Your task to perform on an android device: Clear all items from cart on target.com. Search for "logitech g903" on target.com, select the first entry, and add it to the cart. Image 0: 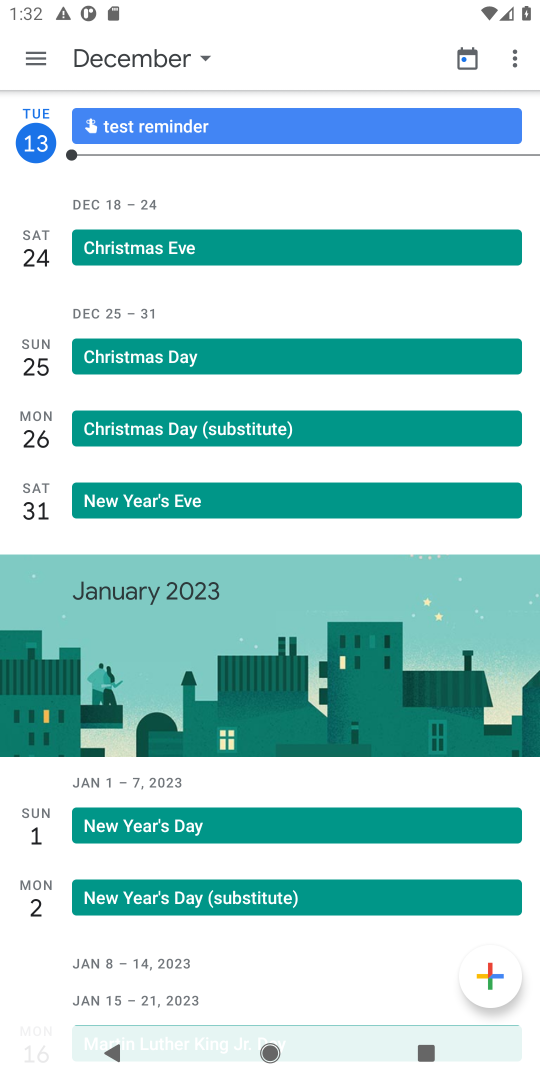
Step 0: press home button
Your task to perform on an android device: Clear all items from cart on target.com. Search for "logitech g903" on target.com, select the first entry, and add it to the cart. Image 1: 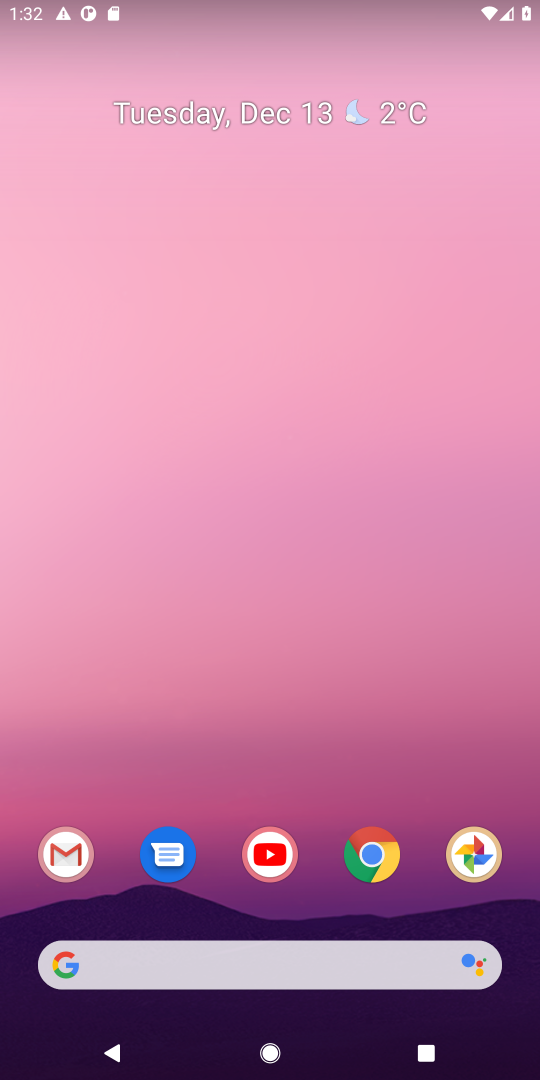
Step 1: click (232, 955)
Your task to perform on an android device: Clear all items from cart on target.com. Search for "logitech g903" on target.com, select the first entry, and add it to the cart. Image 2: 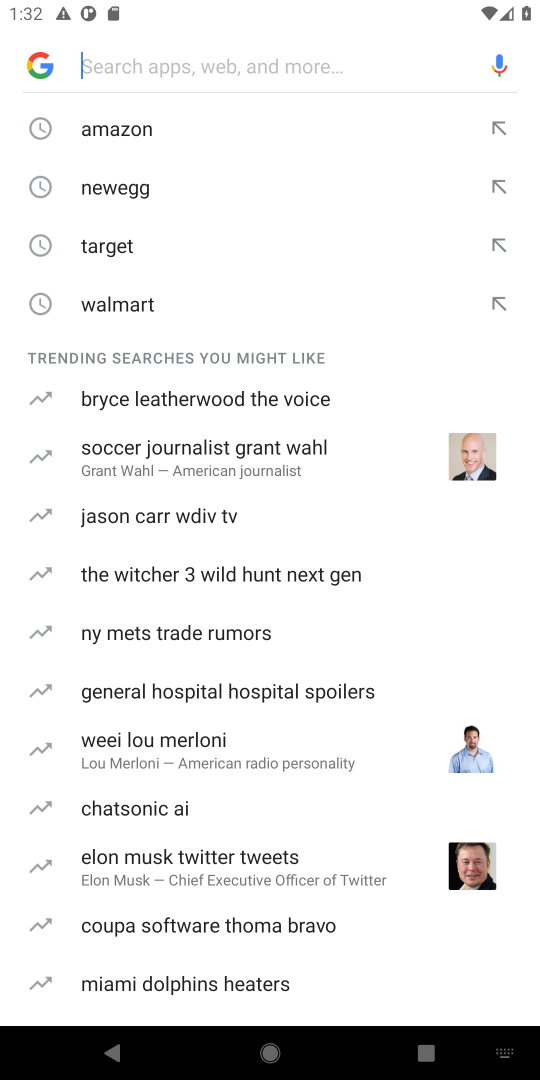
Step 2: type "target"
Your task to perform on an android device: Clear all items from cart on target.com. Search for "logitech g903" on target.com, select the first entry, and add it to the cart. Image 3: 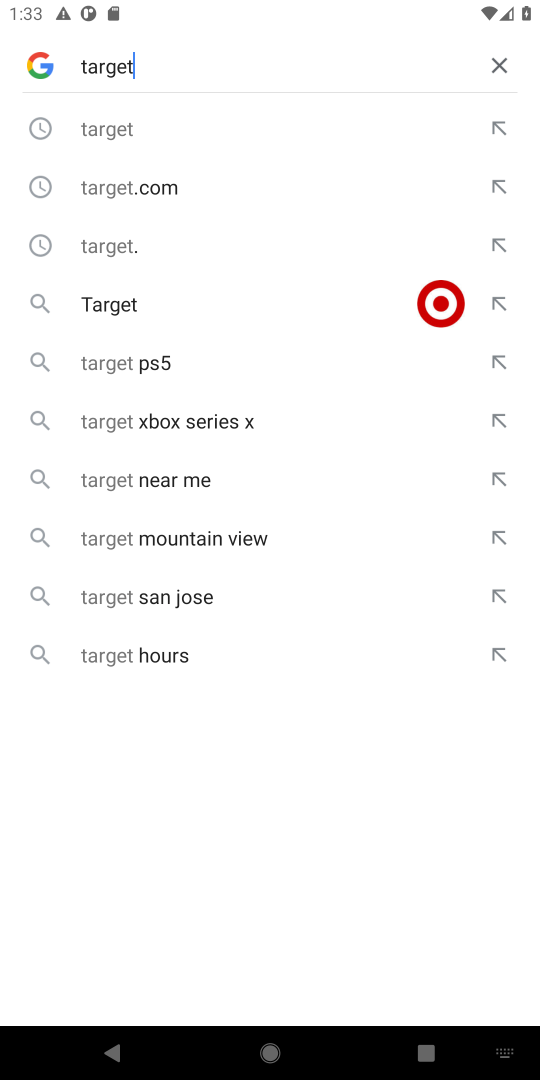
Step 3: click (96, 134)
Your task to perform on an android device: Clear all items from cart on target.com. Search for "logitech g903" on target.com, select the first entry, and add it to the cart. Image 4: 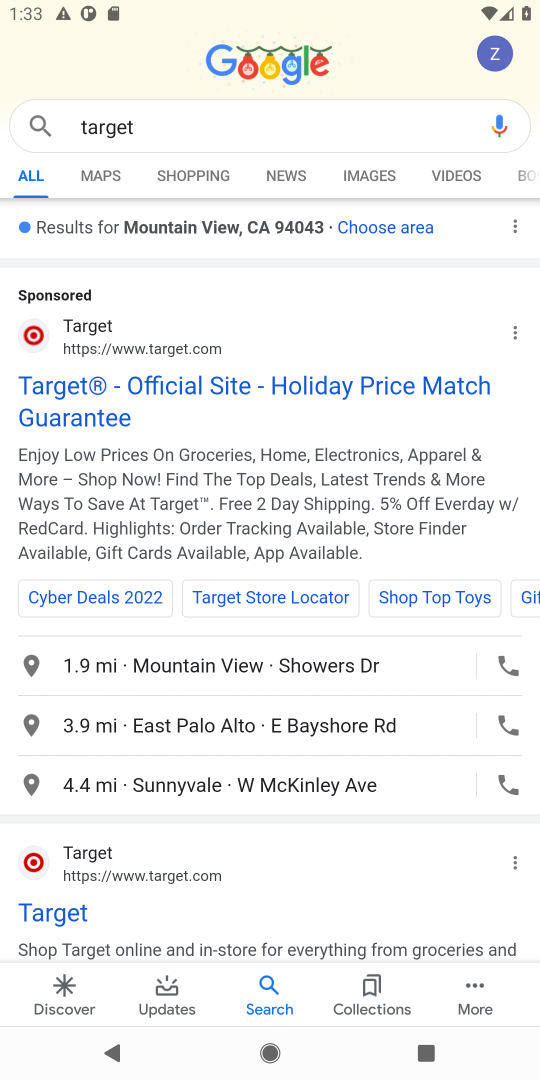
Step 4: click (145, 372)
Your task to perform on an android device: Clear all items from cart on target.com. Search for "logitech g903" on target.com, select the first entry, and add it to the cart. Image 5: 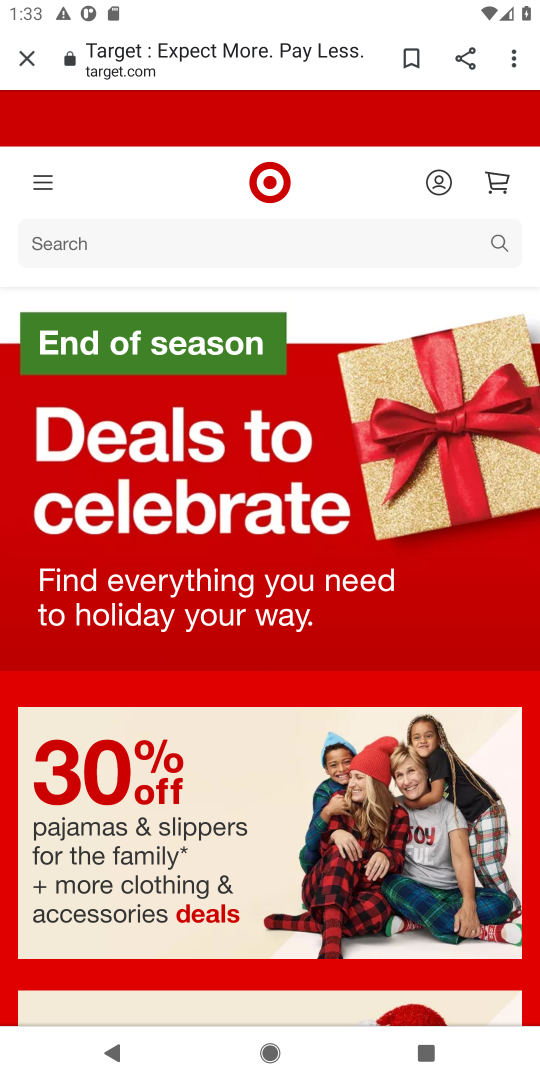
Step 5: click (155, 234)
Your task to perform on an android device: Clear all items from cart on target.com. Search for "logitech g903" on target.com, select the first entry, and add it to the cart. Image 6: 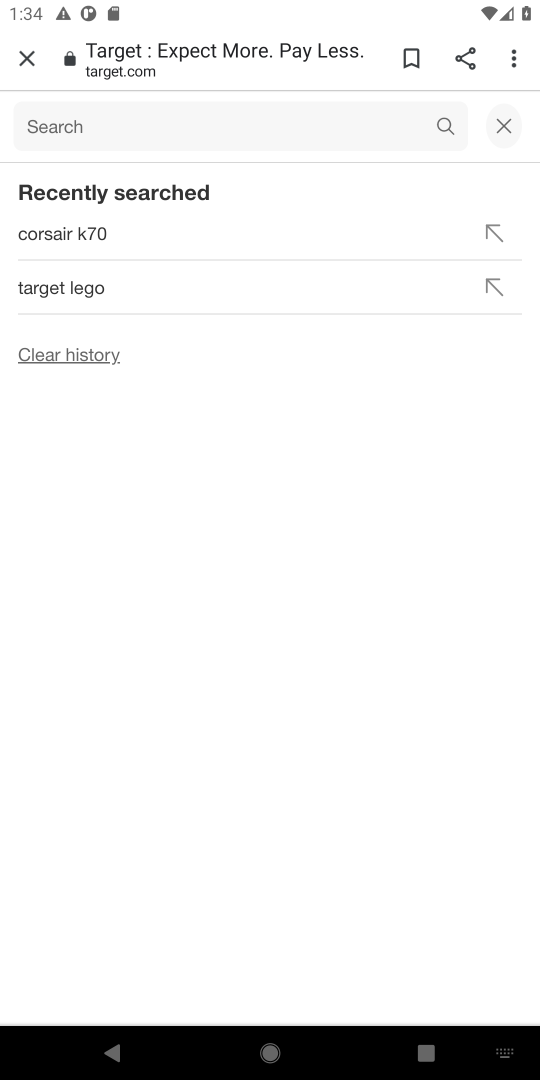
Step 6: type "logitech g903"
Your task to perform on an android device: Clear all items from cart on target.com. Search for "logitech g903" on target.com, select the first entry, and add it to the cart. Image 7: 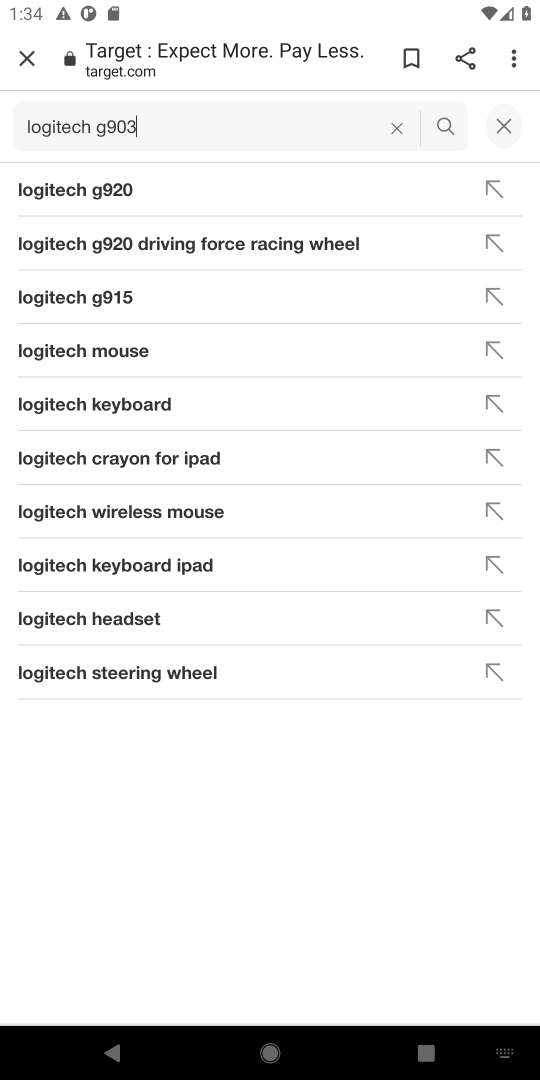
Step 7: click (441, 132)
Your task to perform on an android device: Clear all items from cart on target.com. Search for "logitech g903" on target.com, select the first entry, and add it to the cart. Image 8: 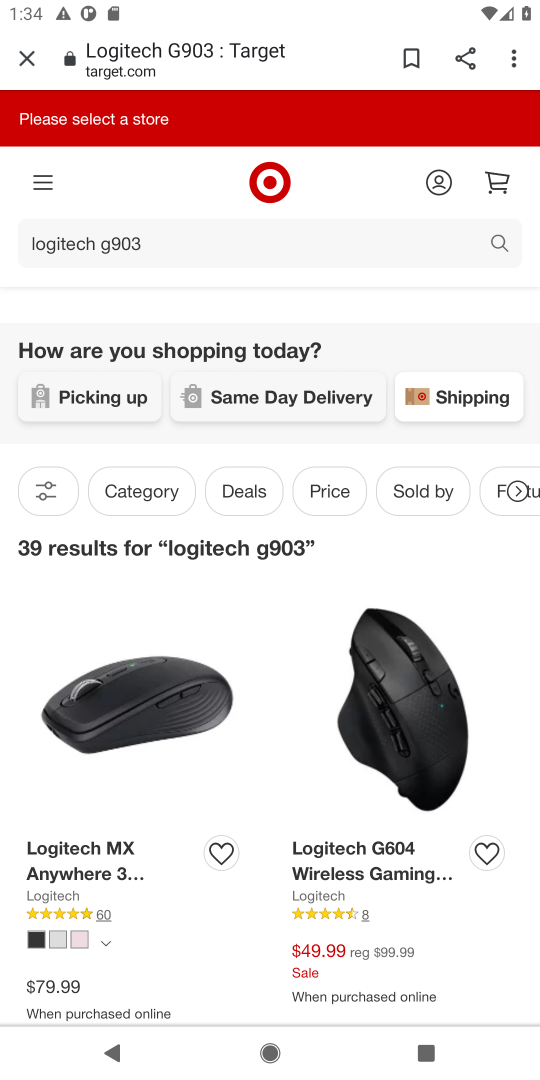
Step 8: click (110, 841)
Your task to perform on an android device: Clear all items from cart on target.com. Search for "logitech g903" on target.com, select the first entry, and add it to the cart. Image 9: 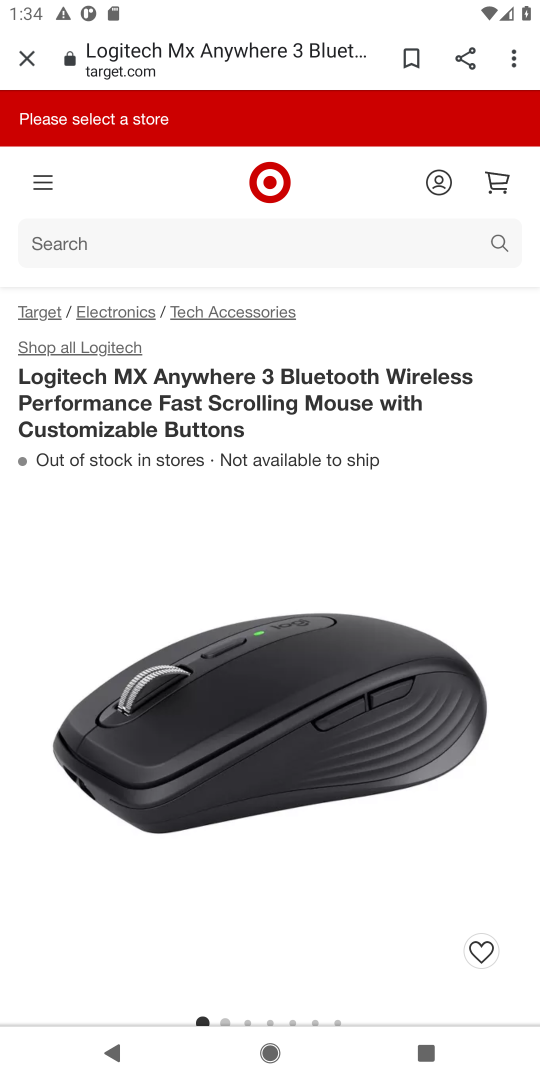
Step 9: drag from (44, 810) to (86, 202)
Your task to perform on an android device: Clear all items from cart on target.com. Search for "logitech g903" on target.com, select the first entry, and add it to the cart. Image 10: 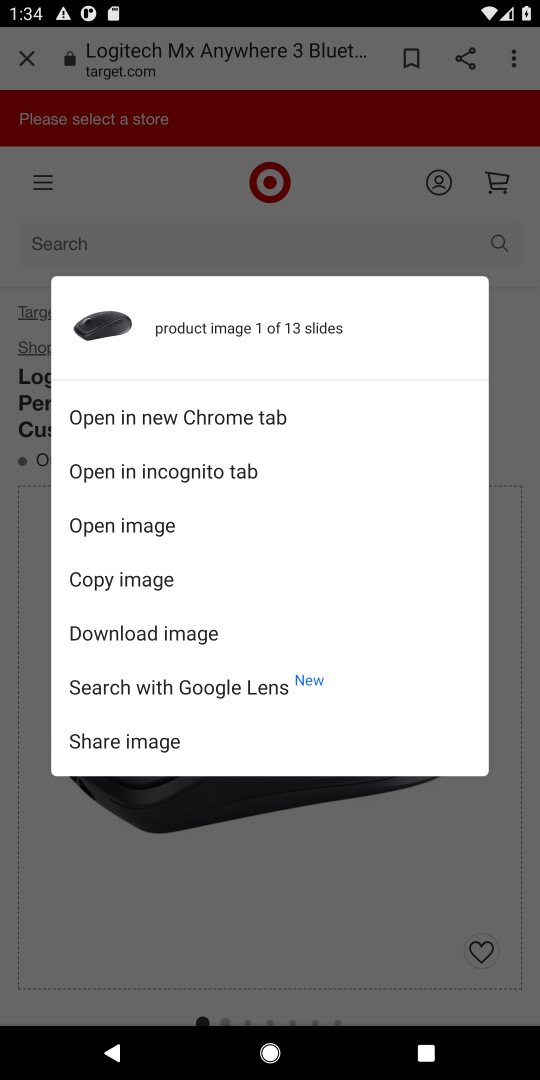
Step 10: click (252, 880)
Your task to perform on an android device: Clear all items from cart on target.com. Search for "logitech g903" on target.com, select the first entry, and add it to the cart. Image 11: 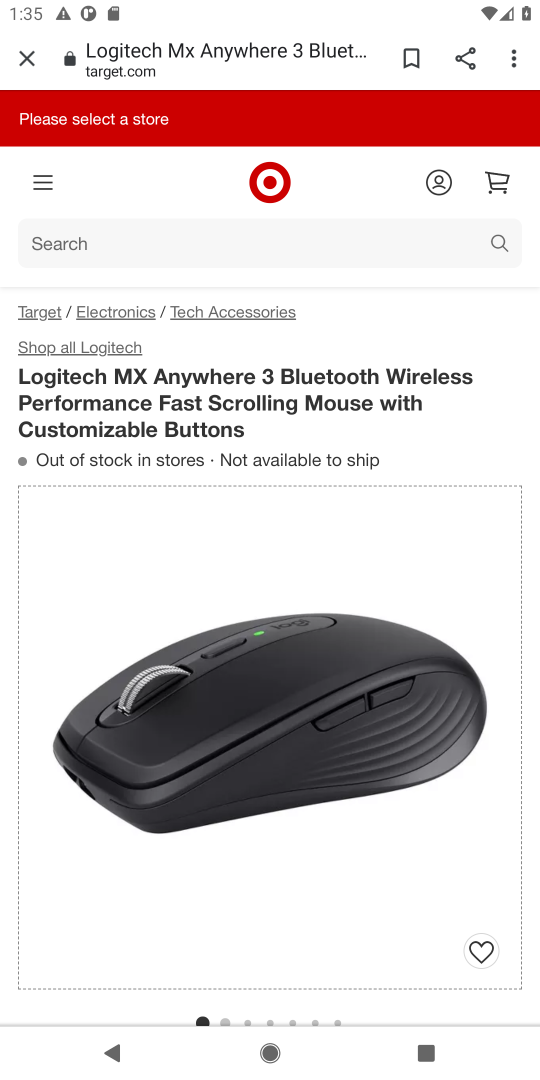
Step 11: drag from (178, 815) to (155, 446)
Your task to perform on an android device: Clear all items from cart on target.com. Search for "logitech g903" on target.com, select the first entry, and add it to the cart. Image 12: 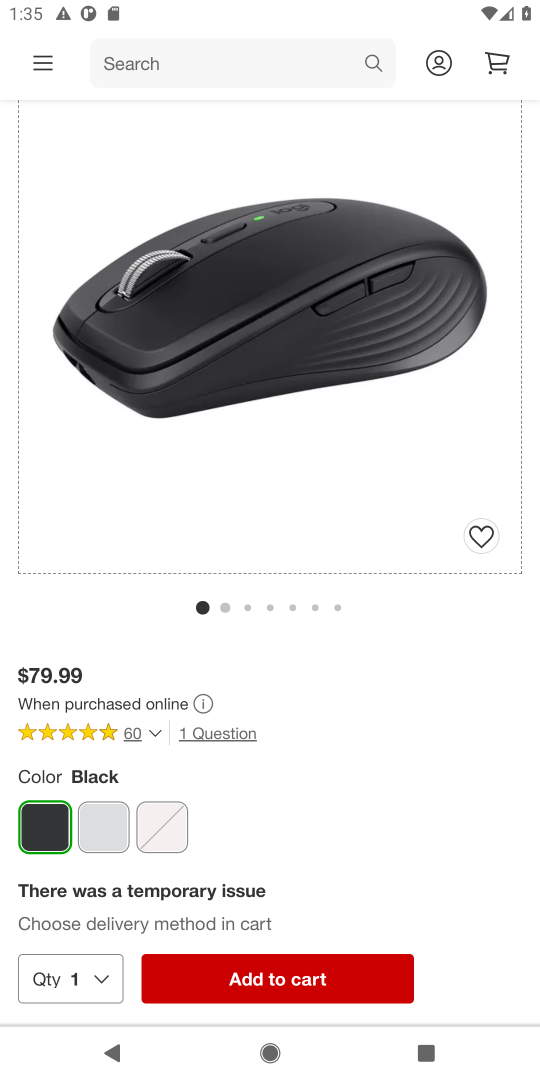
Step 12: click (269, 973)
Your task to perform on an android device: Clear all items from cart on target.com. Search for "logitech g903" on target.com, select the first entry, and add it to the cart. Image 13: 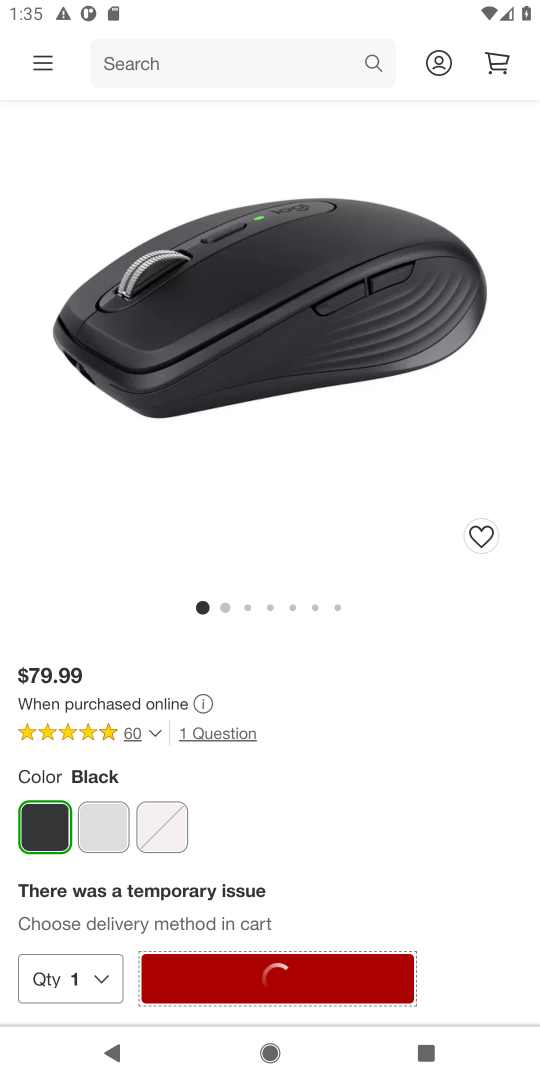
Step 13: task complete